Your task to perform on an android device: open app "YouTube Kids" (install if not already installed), go to login, and select forgot password Image 0: 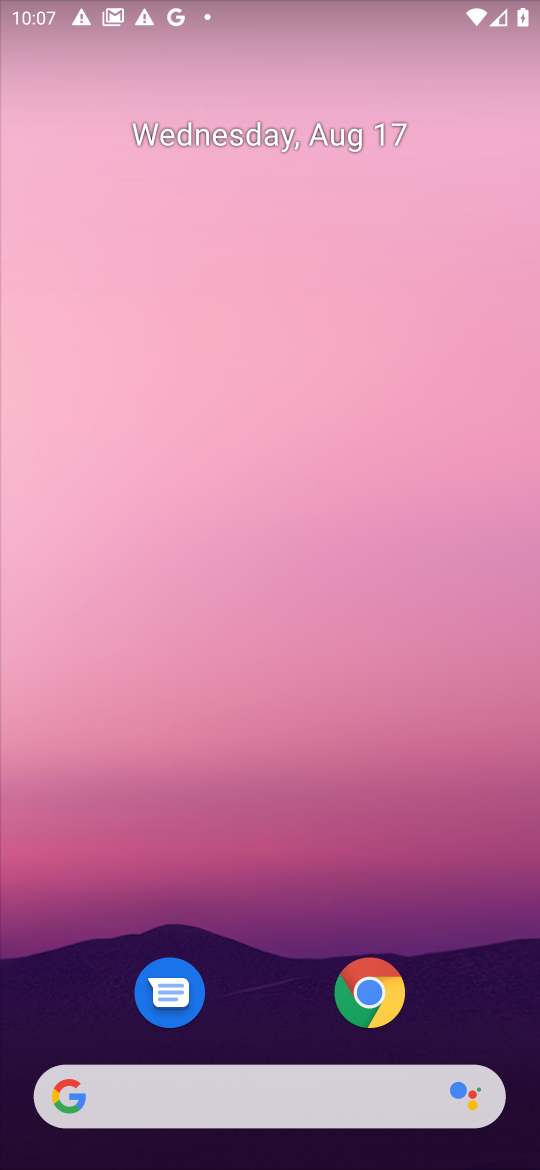
Step 0: drag from (496, 989) to (229, 111)
Your task to perform on an android device: open app "YouTube Kids" (install if not already installed), go to login, and select forgot password Image 1: 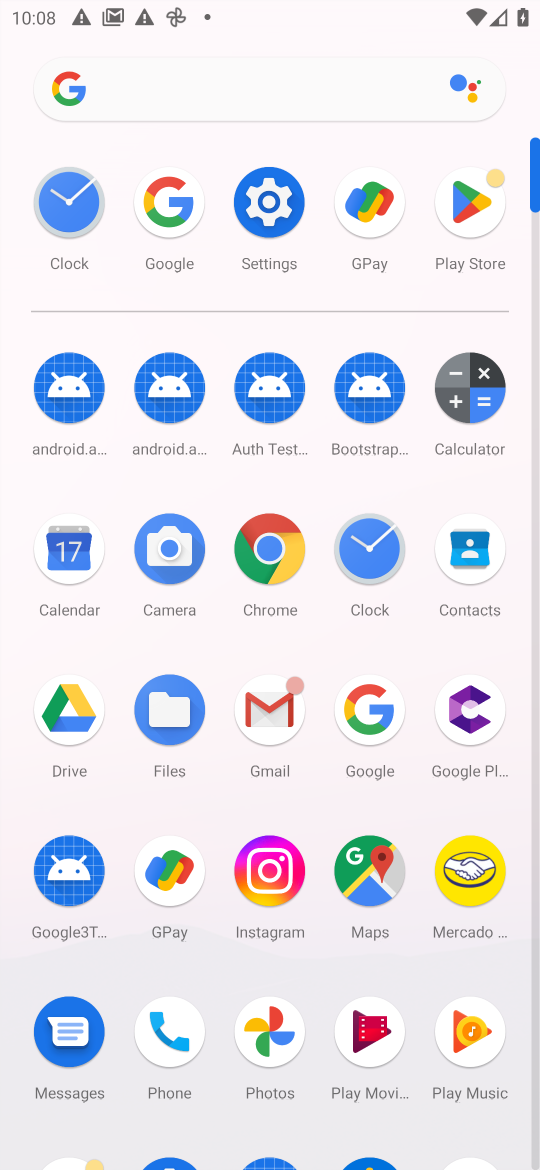
Step 1: drag from (368, 1069) to (237, 129)
Your task to perform on an android device: open app "YouTube Kids" (install if not already installed), go to login, and select forgot password Image 2: 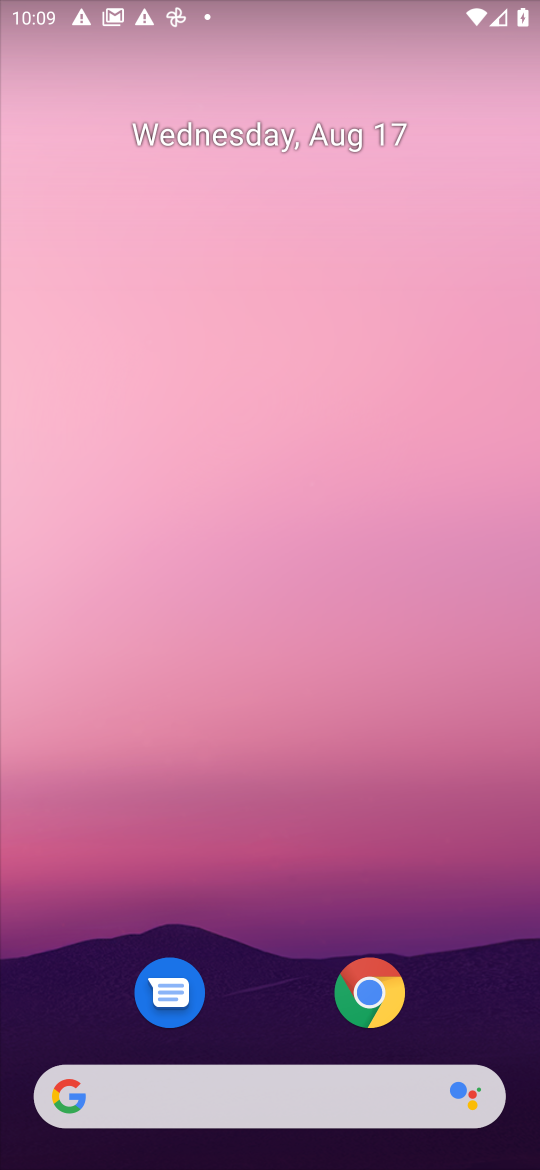
Step 2: drag from (494, 978) to (248, 49)
Your task to perform on an android device: open app "YouTube Kids" (install if not already installed), go to login, and select forgot password Image 3: 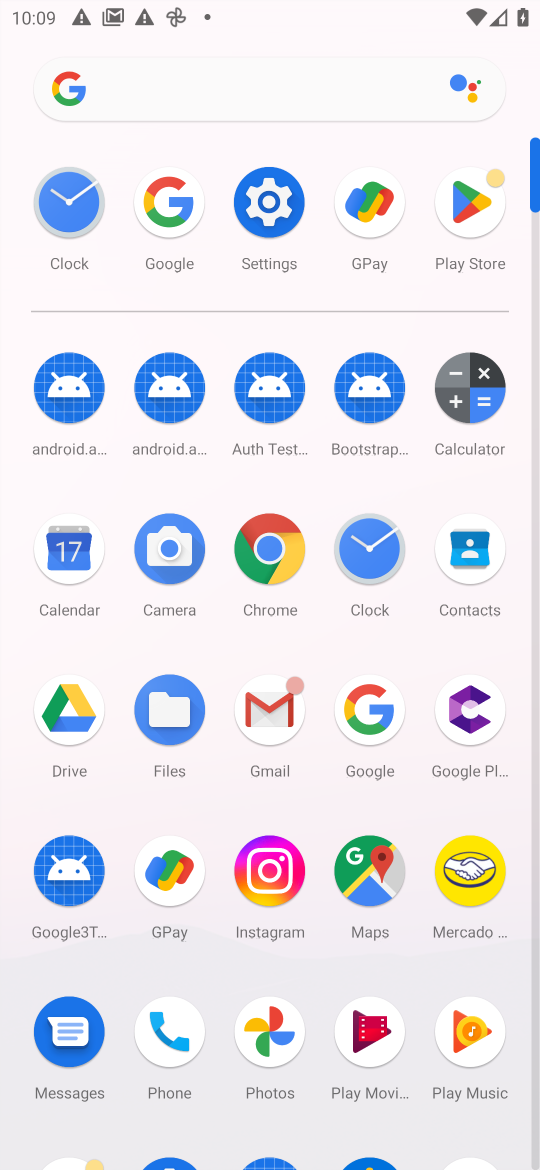
Step 3: click (473, 199)
Your task to perform on an android device: open app "YouTube Kids" (install if not already installed), go to login, and select forgot password Image 4: 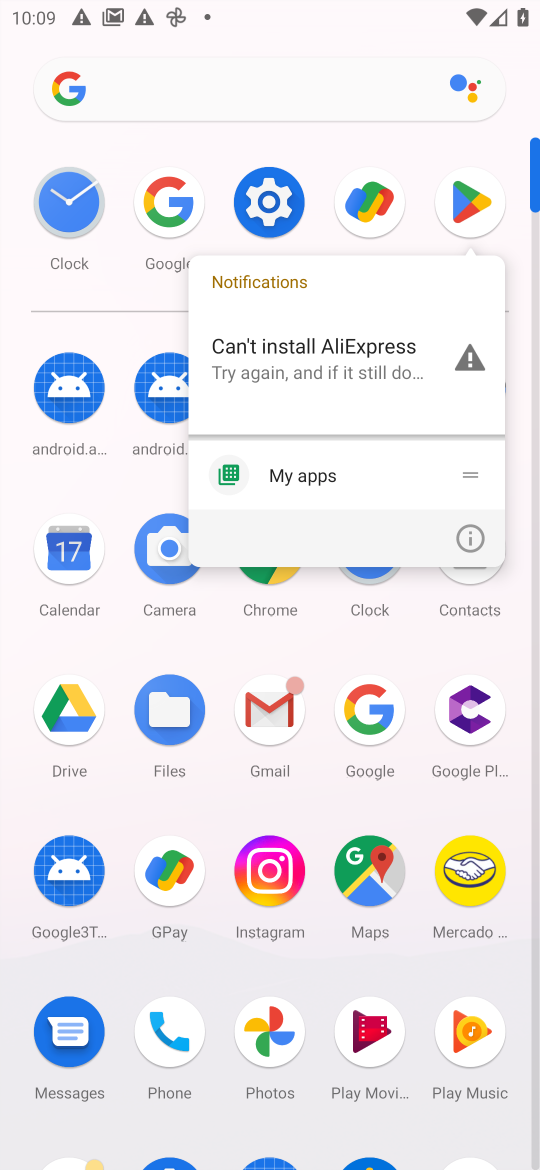
Step 4: click (472, 184)
Your task to perform on an android device: open app "YouTube Kids" (install if not already installed), go to login, and select forgot password Image 5: 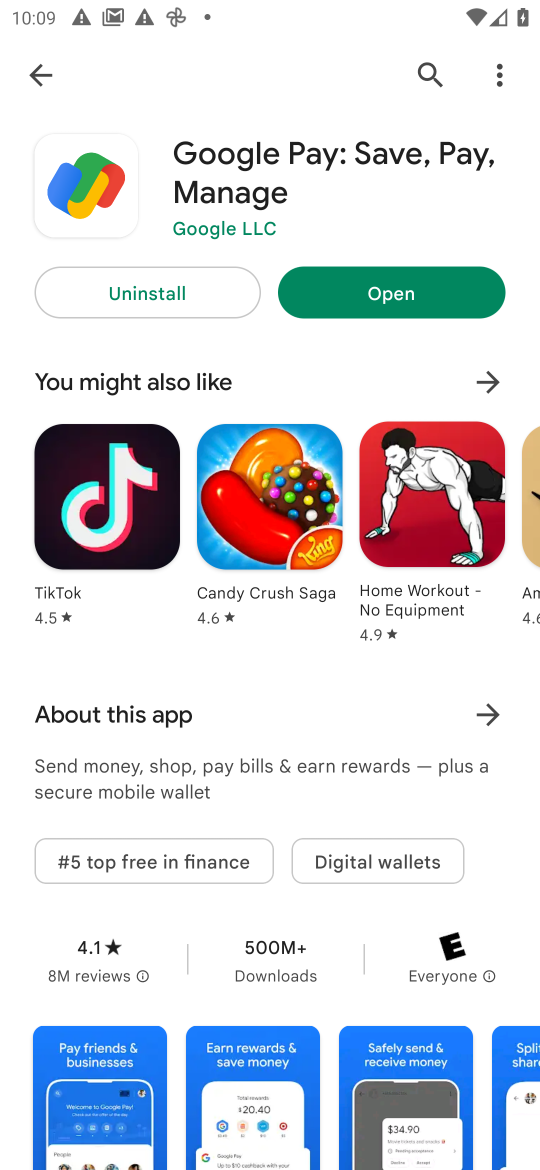
Step 5: press back button
Your task to perform on an android device: open app "YouTube Kids" (install if not already installed), go to login, and select forgot password Image 6: 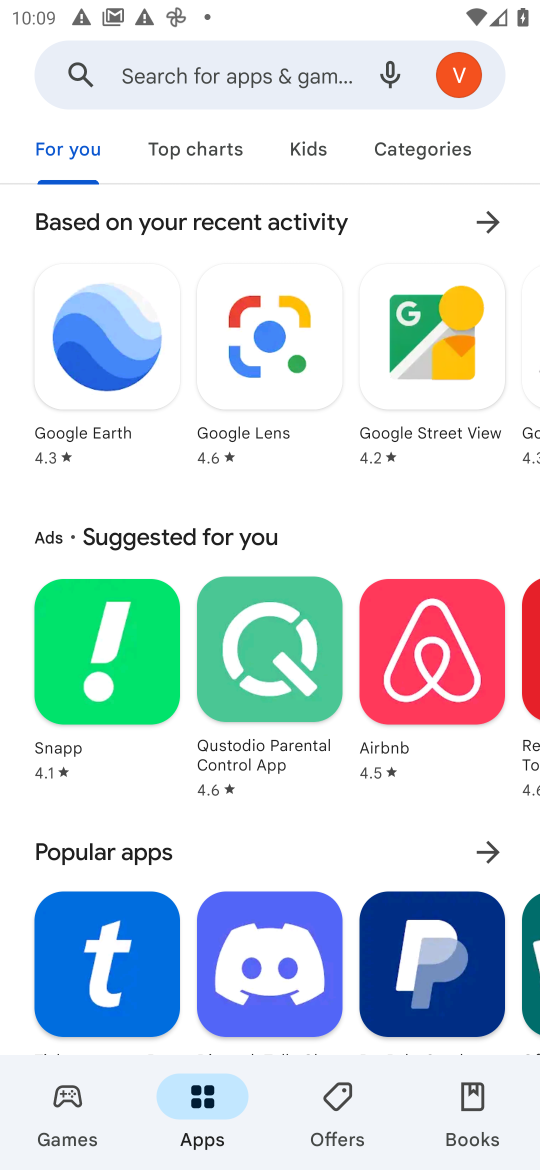
Step 6: click (192, 73)
Your task to perform on an android device: open app "YouTube Kids" (install if not already installed), go to login, and select forgot password Image 7: 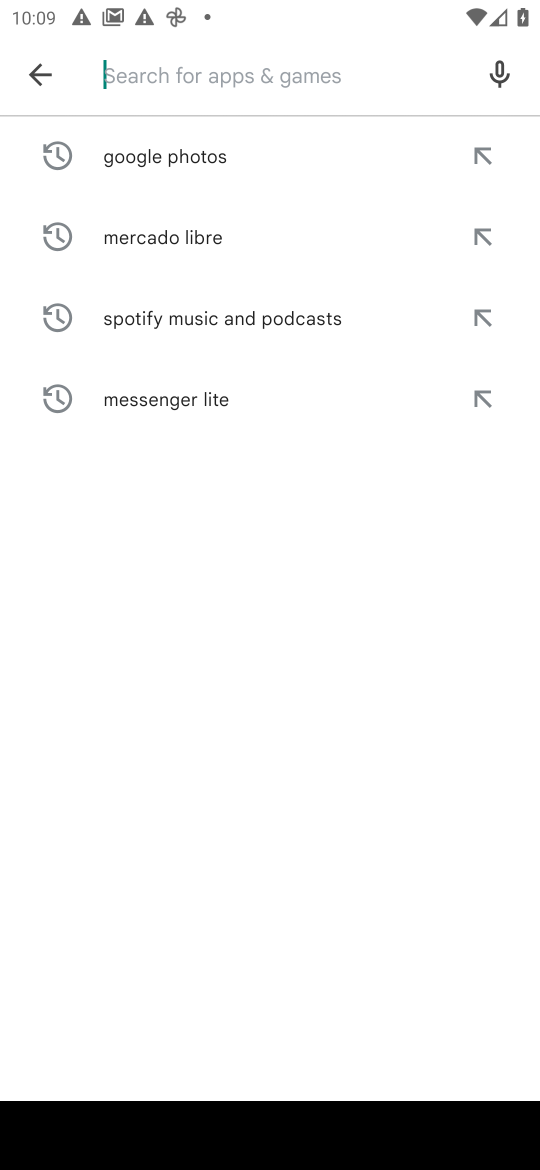
Step 7: type "YouTube Kids"
Your task to perform on an android device: open app "YouTube Kids" (install if not already installed), go to login, and select forgot password Image 8: 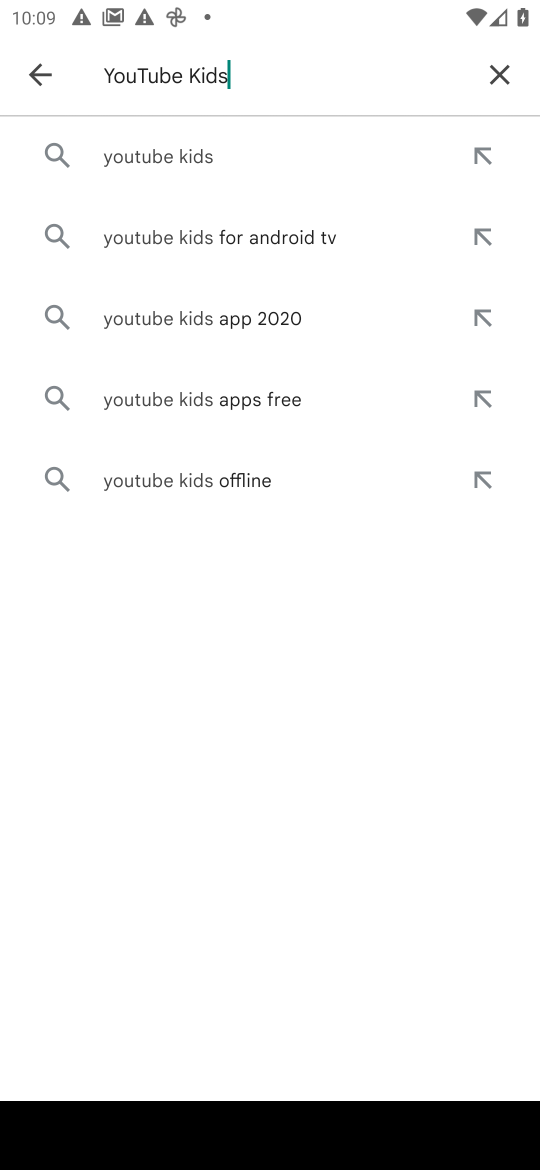
Step 8: click (176, 157)
Your task to perform on an android device: open app "YouTube Kids" (install if not already installed), go to login, and select forgot password Image 9: 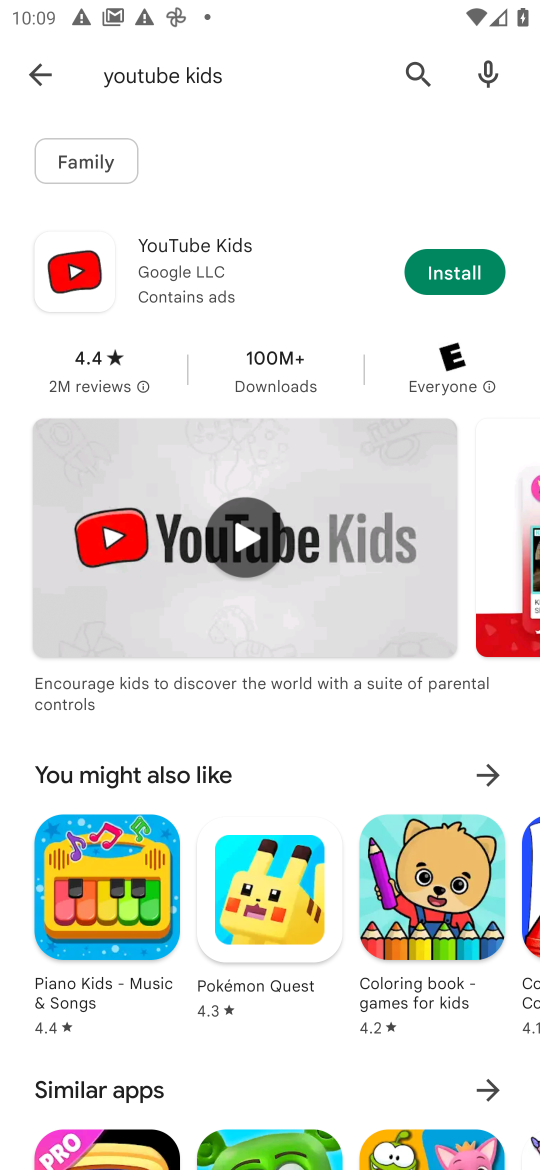
Step 9: task complete